Your task to perform on an android device: Open calendar and show me the third week of next month Image 0: 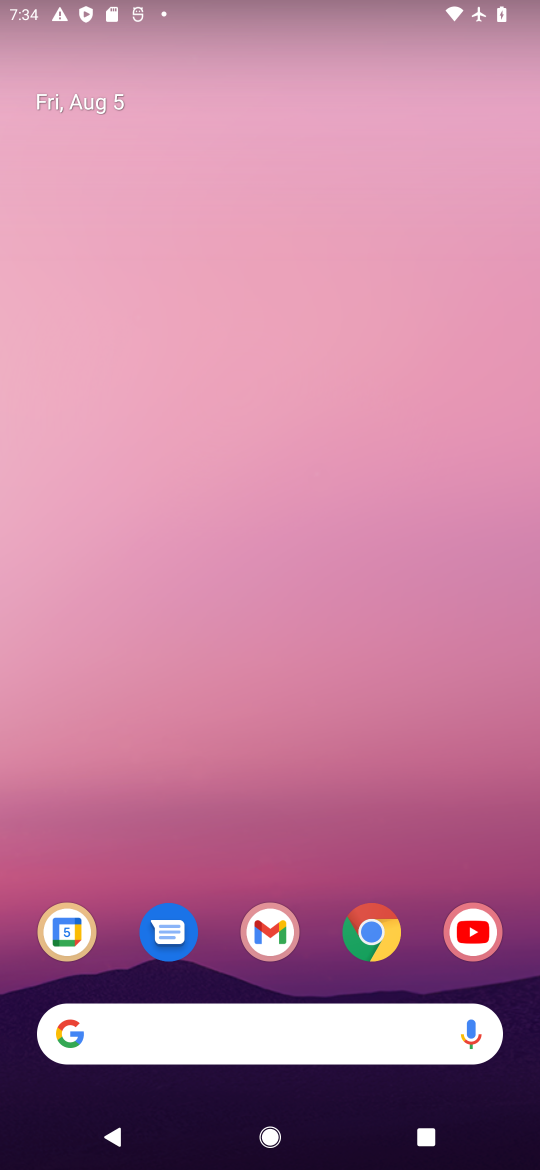
Step 0: drag from (222, 1018) to (300, 62)
Your task to perform on an android device: Open calendar and show me the third week of next month Image 1: 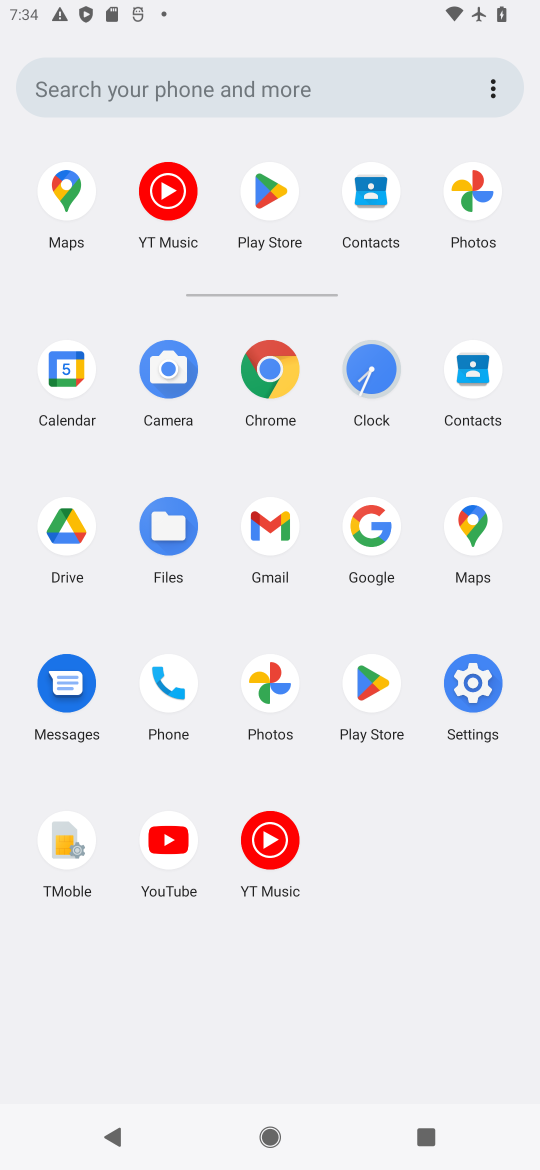
Step 1: click (66, 371)
Your task to perform on an android device: Open calendar and show me the third week of next month Image 2: 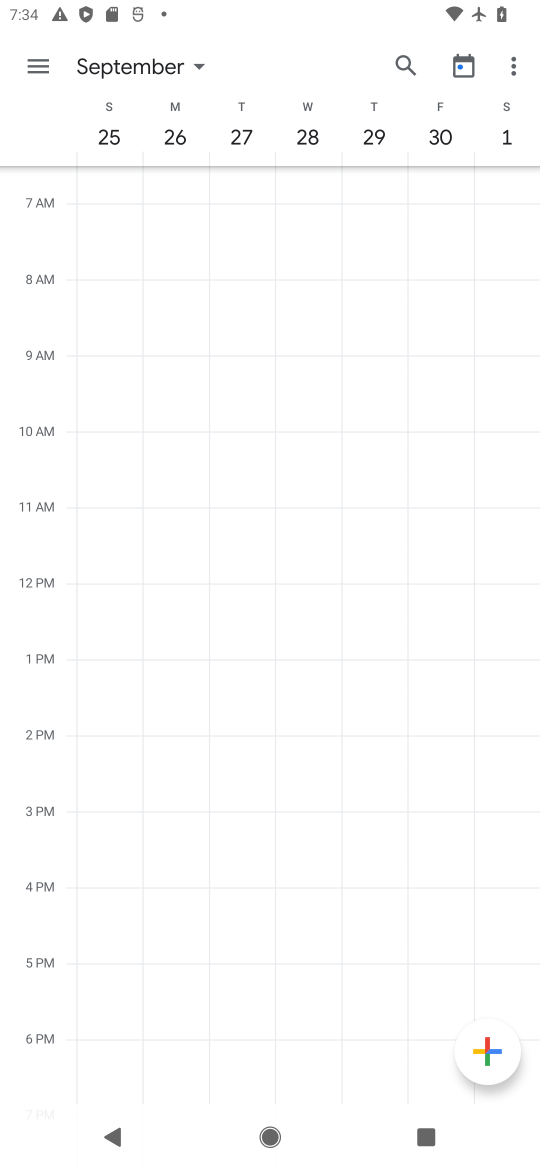
Step 2: click (192, 68)
Your task to perform on an android device: Open calendar and show me the third week of next month Image 3: 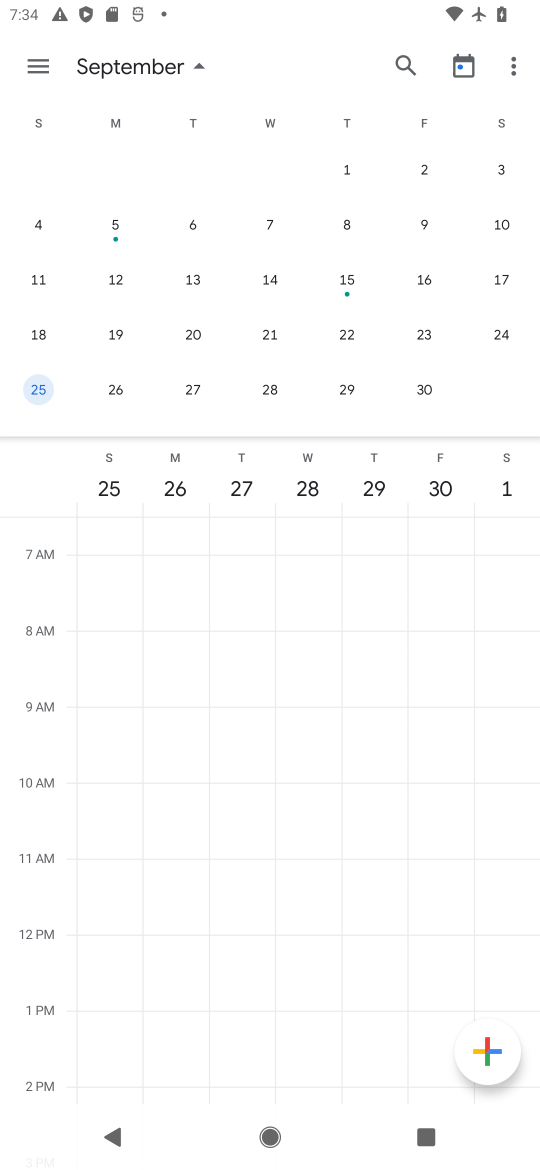
Step 3: click (120, 339)
Your task to perform on an android device: Open calendar and show me the third week of next month Image 4: 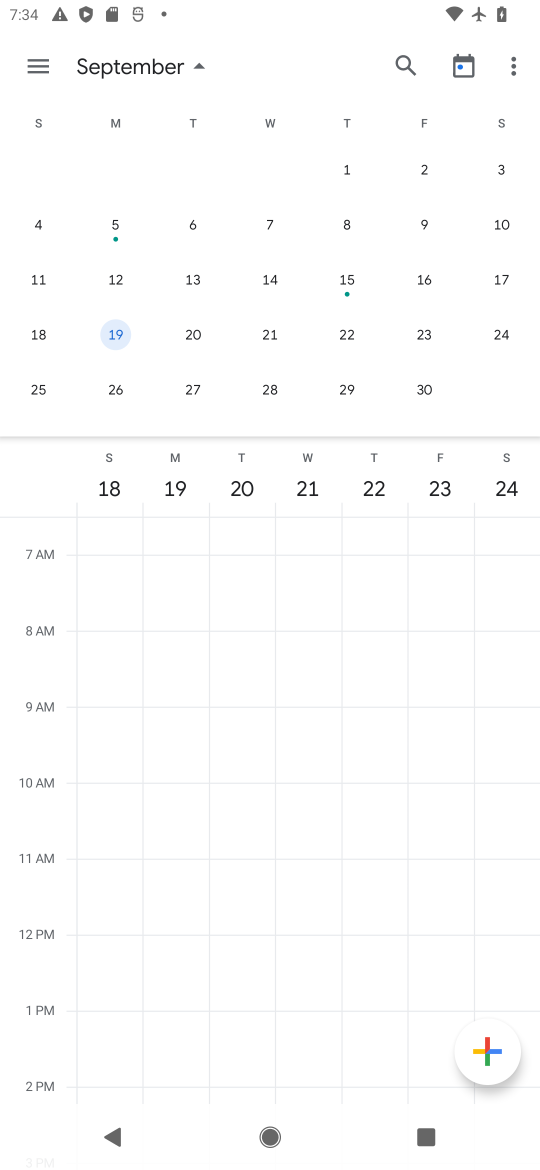
Step 4: click (31, 67)
Your task to perform on an android device: Open calendar and show me the third week of next month Image 5: 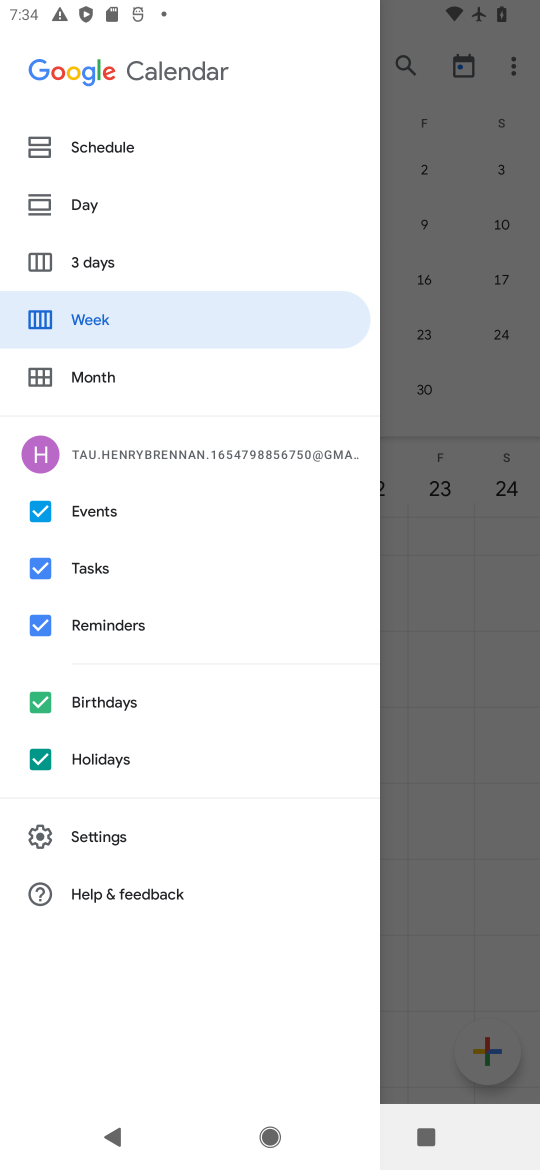
Step 5: click (109, 298)
Your task to perform on an android device: Open calendar and show me the third week of next month Image 6: 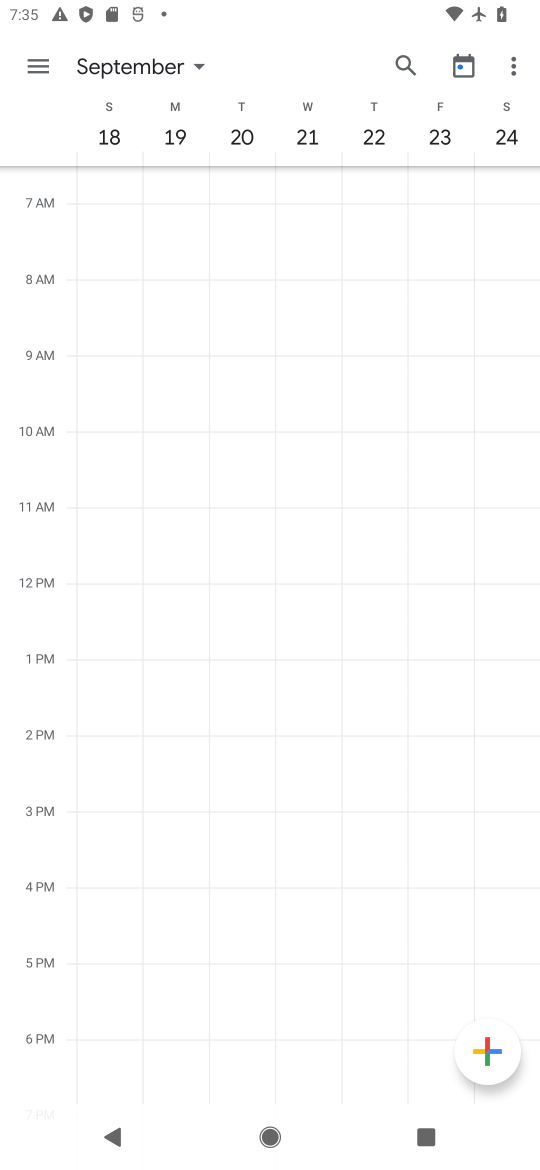
Step 6: task complete